Your task to perform on an android device: What's the weather going to be this weekend? Image 0: 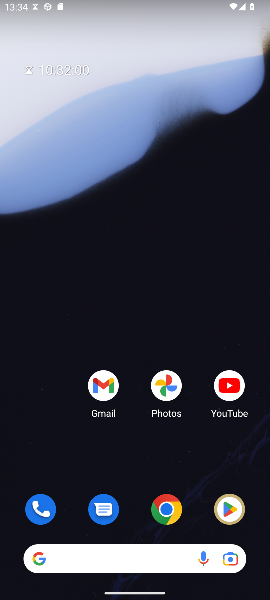
Step 0: press home button
Your task to perform on an android device: What's the weather going to be this weekend? Image 1: 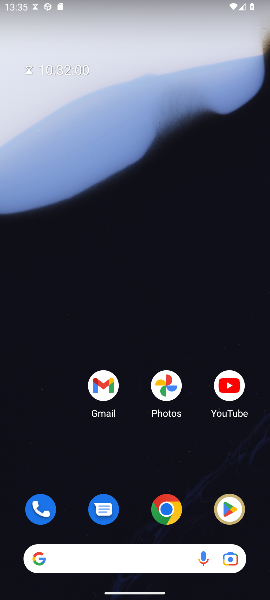
Step 1: drag from (140, 513) to (155, 117)
Your task to perform on an android device: What's the weather going to be this weekend? Image 2: 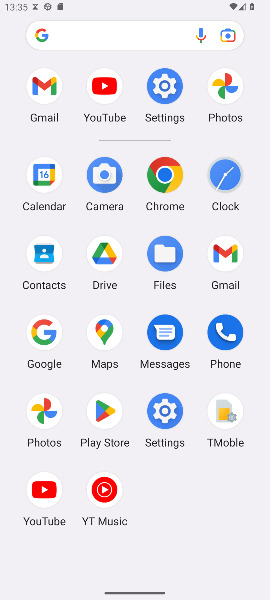
Step 2: click (52, 334)
Your task to perform on an android device: What's the weather going to be this weekend? Image 3: 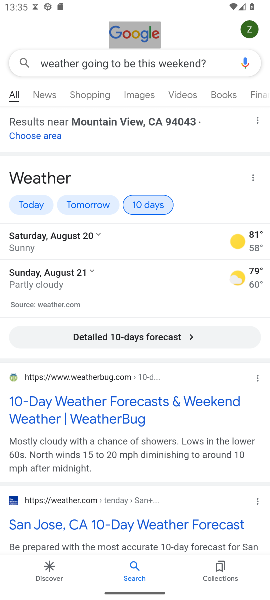
Step 3: click (209, 61)
Your task to perform on an android device: What's the weather going to be this weekend? Image 4: 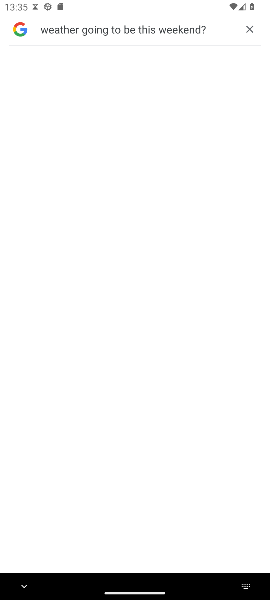
Step 4: click (253, 29)
Your task to perform on an android device: What's the weather going to be this weekend? Image 5: 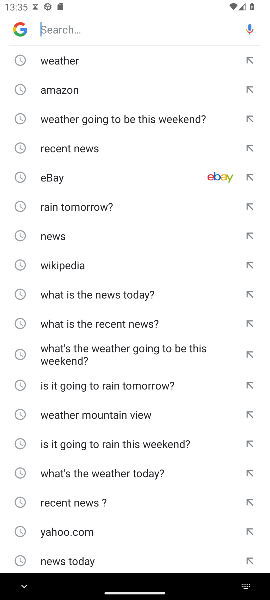
Step 5: type " weather going to be this weekend?"
Your task to perform on an android device: What's the weather going to be this weekend? Image 6: 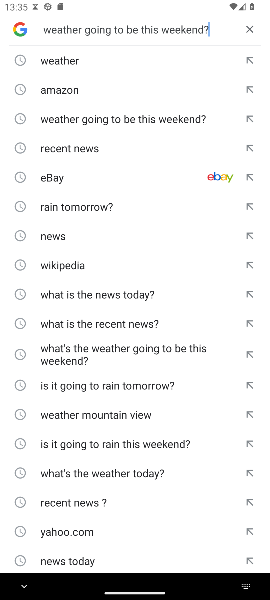
Step 6: press enter
Your task to perform on an android device: What's the weather going to be this weekend? Image 7: 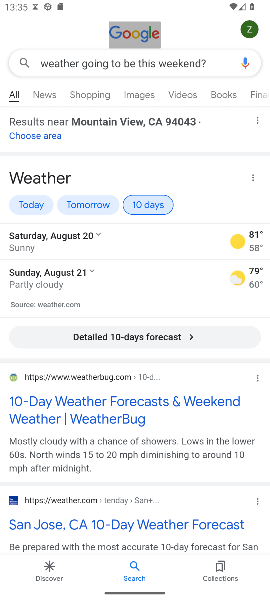
Step 7: task complete